Your task to perform on an android device: turn pop-ups off in chrome Image 0: 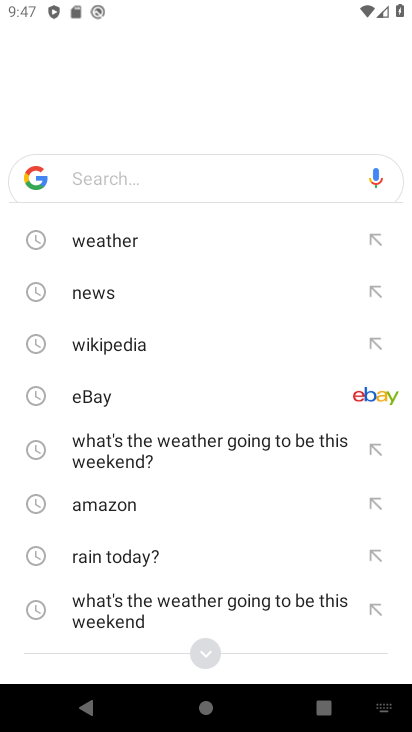
Step 0: press back button
Your task to perform on an android device: turn pop-ups off in chrome Image 1: 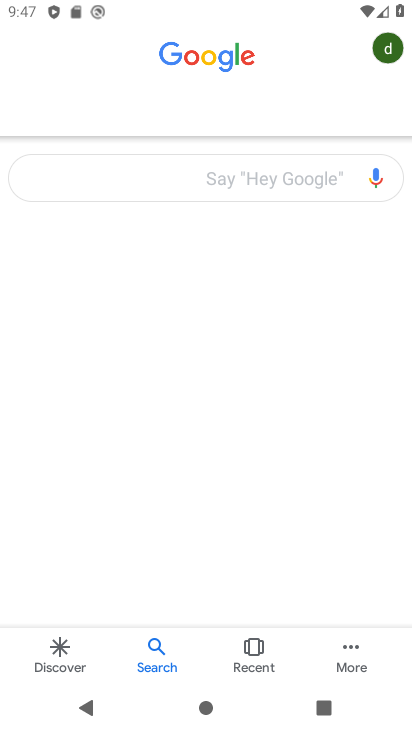
Step 1: press back button
Your task to perform on an android device: turn pop-ups off in chrome Image 2: 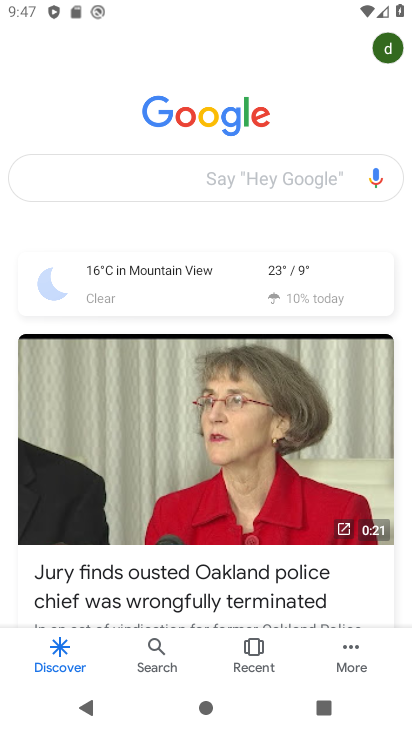
Step 2: press back button
Your task to perform on an android device: turn pop-ups off in chrome Image 3: 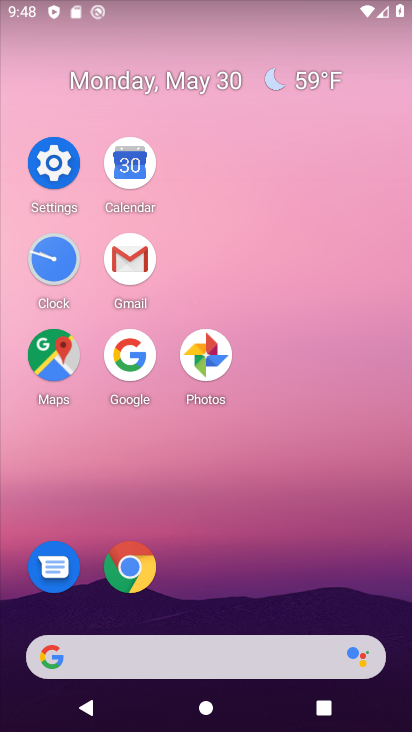
Step 3: click (130, 571)
Your task to perform on an android device: turn pop-ups off in chrome Image 4: 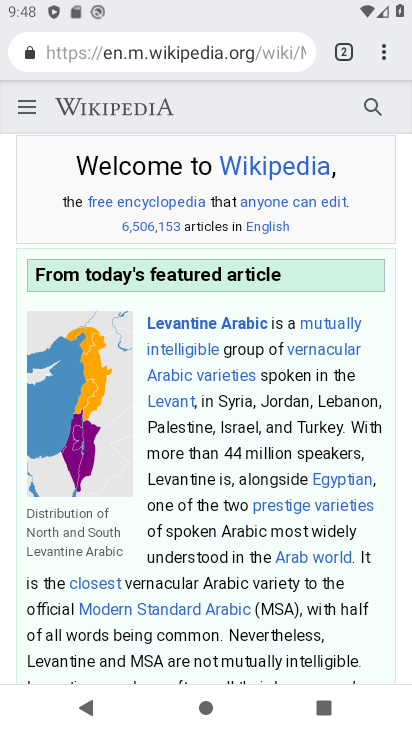
Step 4: click (390, 56)
Your task to perform on an android device: turn pop-ups off in chrome Image 5: 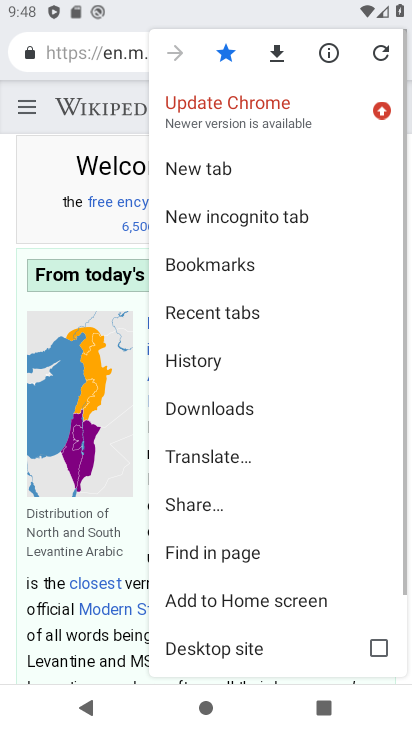
Step 5: drag from (274, 564) to (306, 199)
Your task to perform on an android device: turn pop-ups off in chrome Image 6: 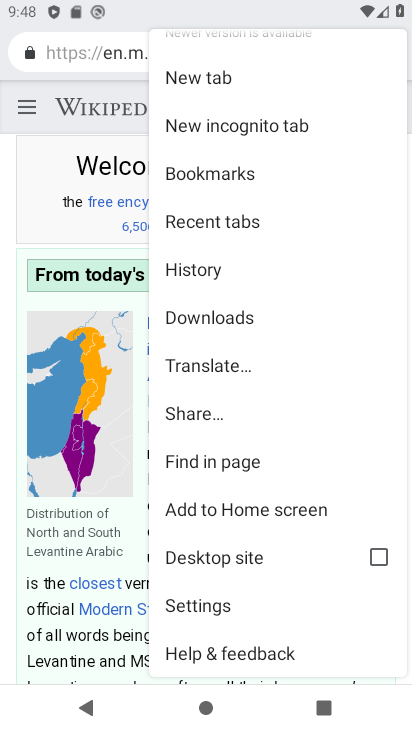
Step 6: click (246, 611)
Your task to perform on an android device: turn pop-ups off in chrome Image 7: 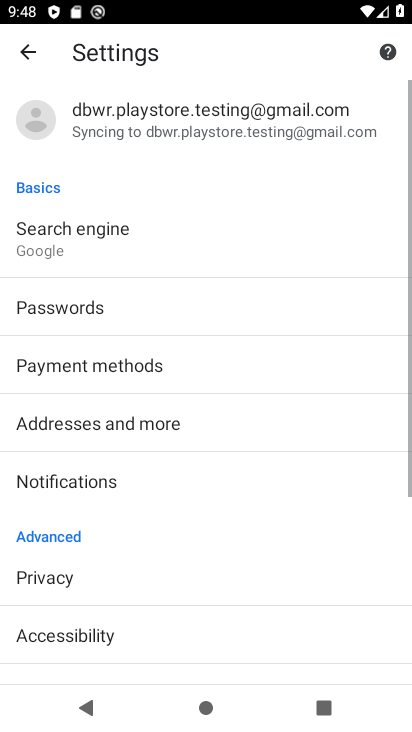
Step 7: drag from (246, 610) to (240, 256)
Your task to perform on an android device: turn pop-ups off in chrome Image 8: 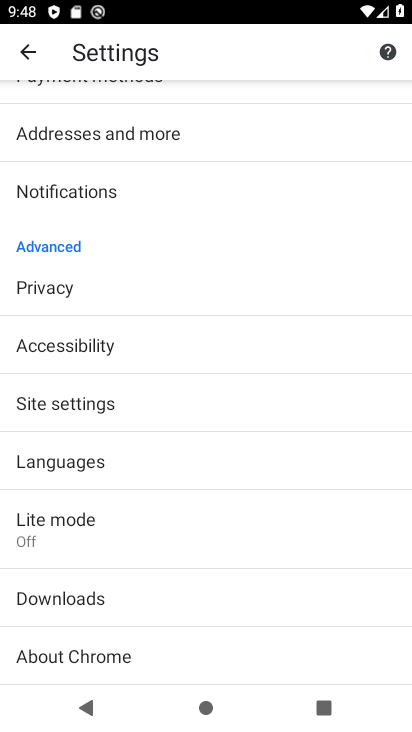
Step 8: click (195, 388)
Your task to perform on an android device: turn pop-ups off in chrome Image 9: 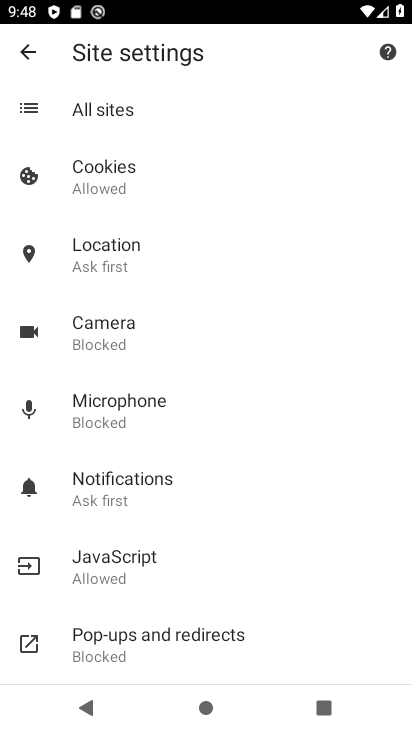
Step 9: drag from (239, 551) to (214, 184)
Your task to perform on an android device: turn pop-ups off in chrome Image 10: 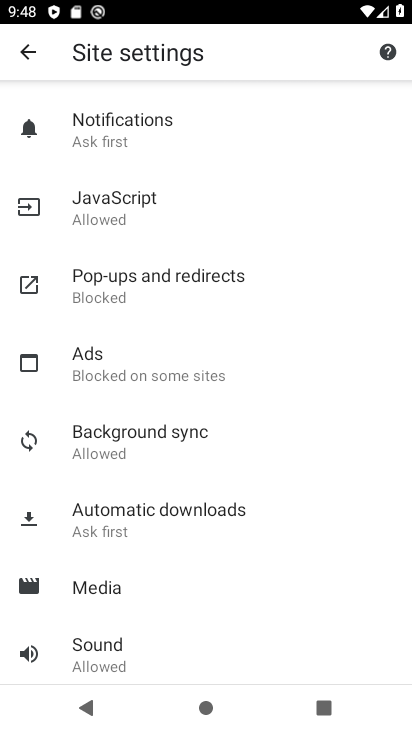
Step 10: click (216, 289)
Your task to perform on an android device: turn pop-ups off in chrome Image 11: 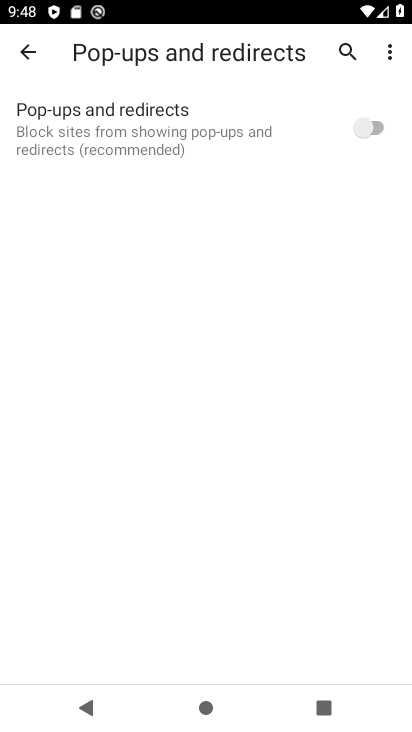
Step 11: task complete